Your task to perform on an android device: Go to Yahoo.com Image 0: 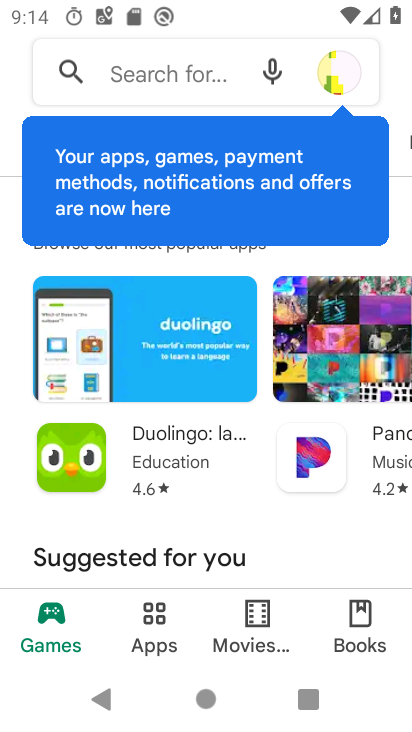
Step 0: press home button
Your task to perform on an android device: Go to Yahoo.com Image 1: 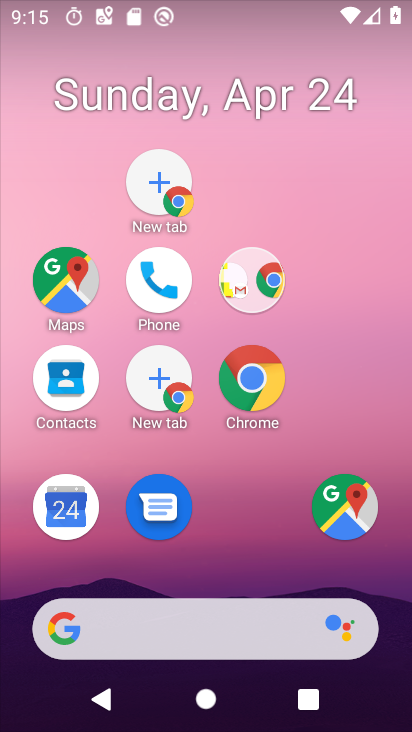
Step 1: drag from (269, 702) to (136, 20)
Your task to perform on an android device: Go to Yahoo.com Image 2: 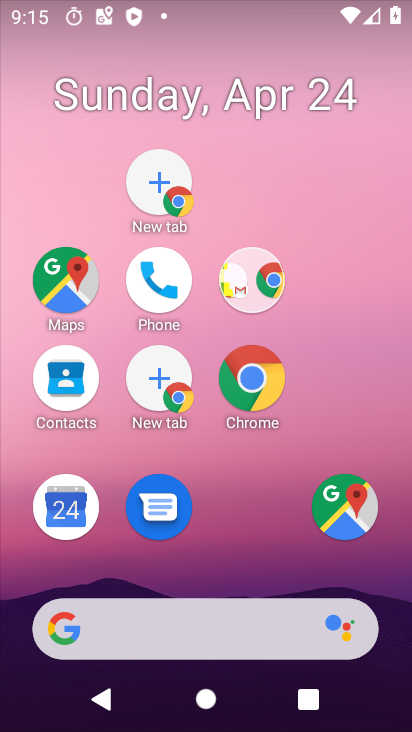
Step 2: drag from (248, 683) to (155, 172)
Your task to perform on an android device: Go to Yahoo.com Image 3: 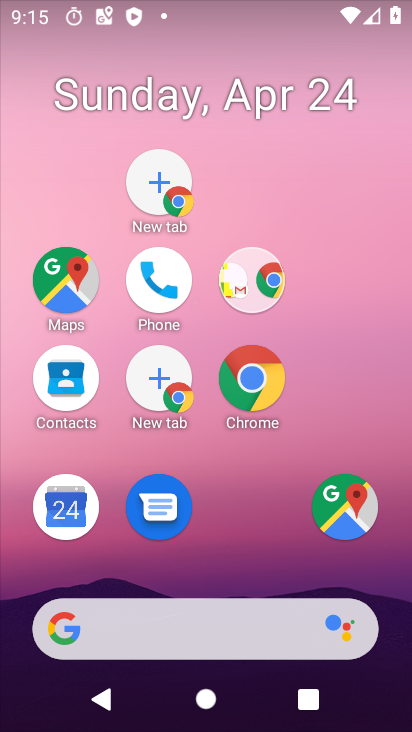
Step 3: drag from (237, 679) to (164, 224)
Your task to perform on an android device: Go to Yahoo.com Image 4: 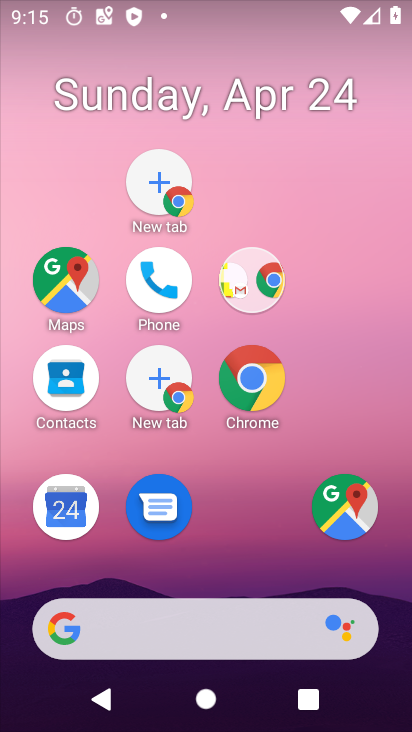
Step 4: drag from (206, 463) to (149, 49)
Your task to perform on an android device: Go to Yahoo.com Image 5: 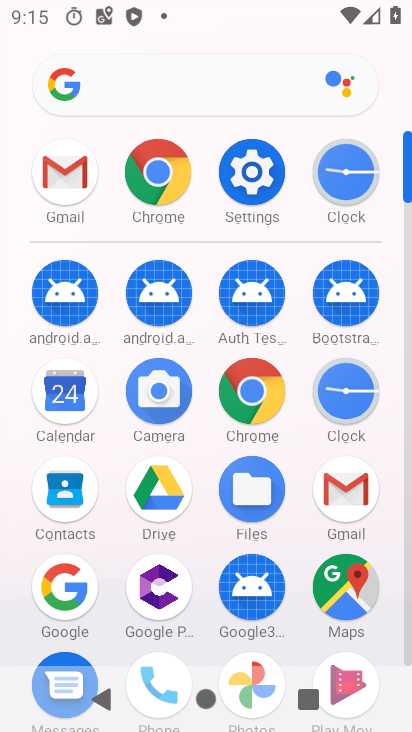
Step 5: click (161, 159)
Your task to perform on an android device: Go to Yahoo.com Image 6: 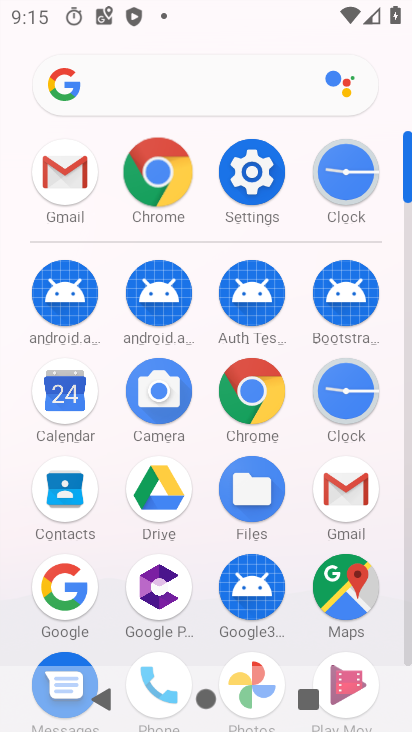
Step 6: click (161, 158)
Your task to perform on an android device: Go to Yahoo.com Image 7: 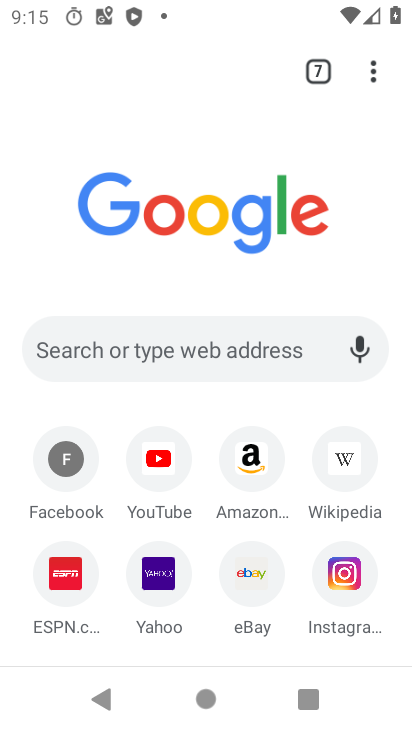
Step 7: click (165, 579)
Your task to perform on an android device: Go to Yahoo.com Image 8: 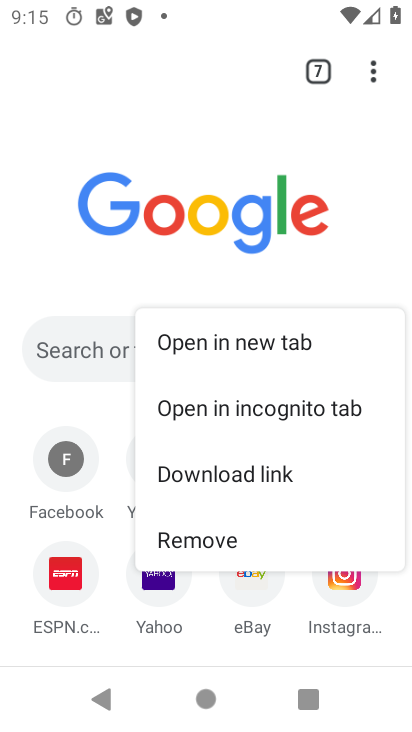
Step 8: click (214, 340)
Your task to perform on an android device: Go to Yahoo.com Image 9: 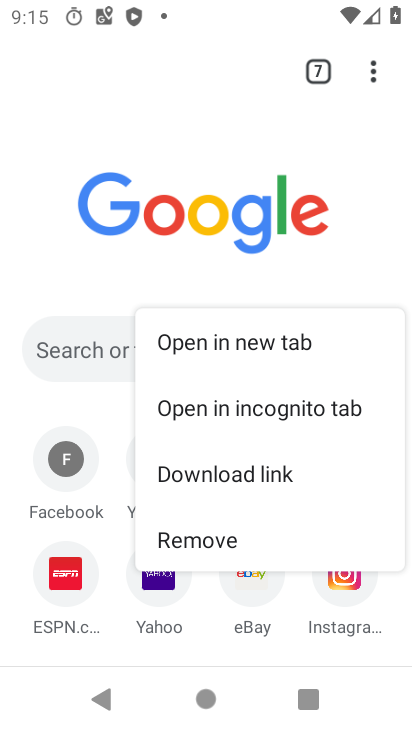
Step 9: click (214, 340)
Your task to perform on an android device: Go to Yahoo.com Image 10: 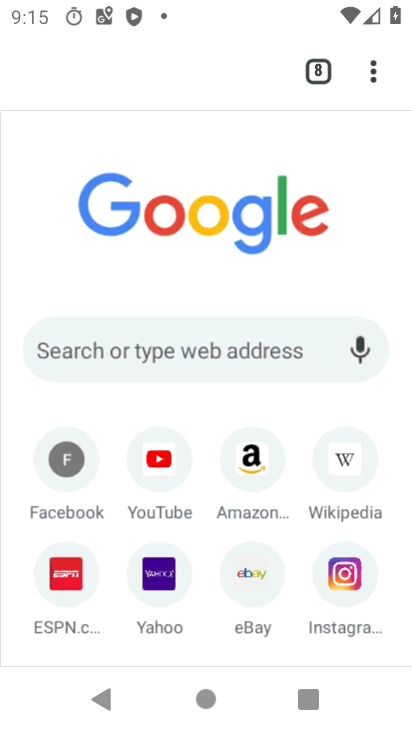
Step 10: click (215, 340)
Your task to perform on an android device: Go to Yahoo.com Image 11: 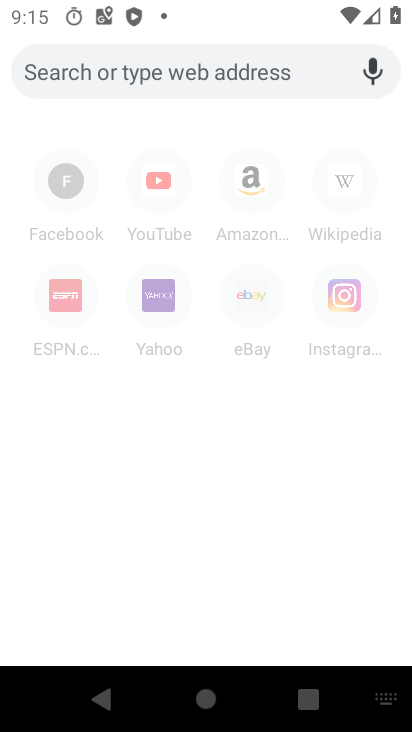
Step 11: click (66, 75)
Your task to perform on an android device: Go to Yahoo.com Image 12: 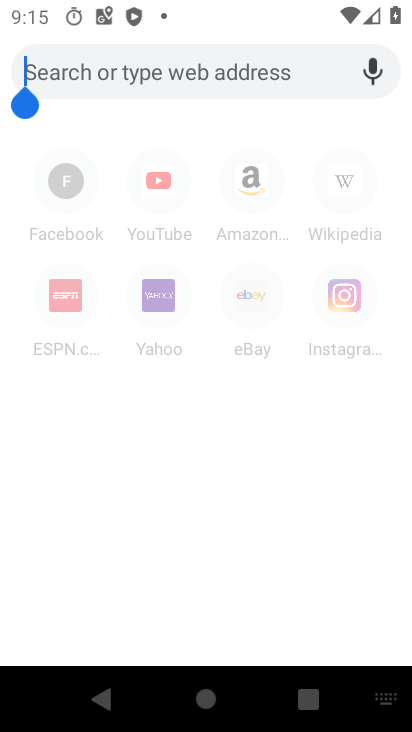
Step 12: click (144, 290)
Your task to perform on an android device: Go to Yahoo.com Image 13: 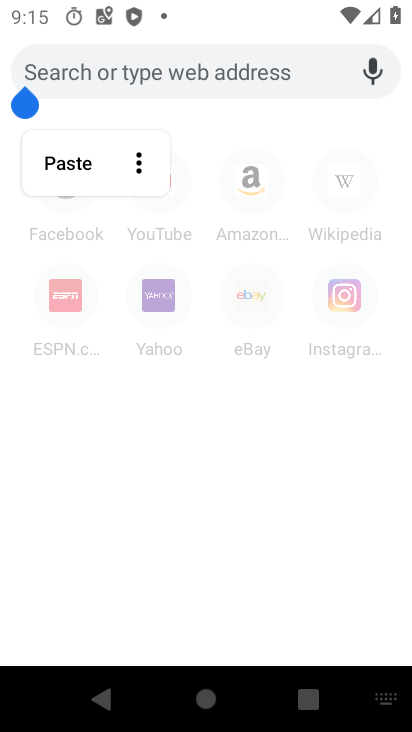
Step 13: click (151, 293)
Your task to perform on an android device: Go to Yahoo.com Image 14: 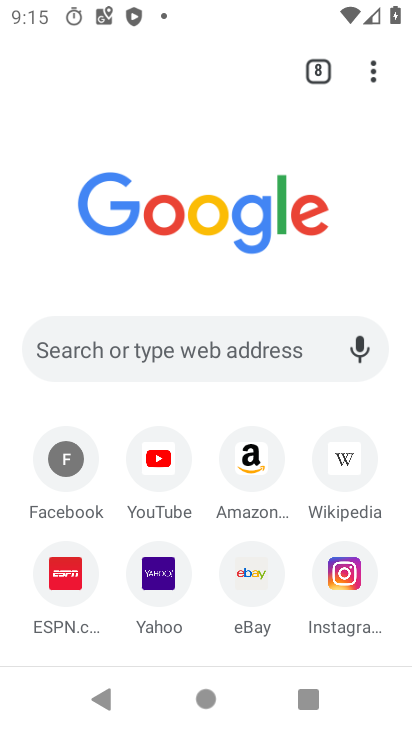
Step 14: click (158, 585)
Your task to perform on an android device: Go to Yahoo.com Image 15: 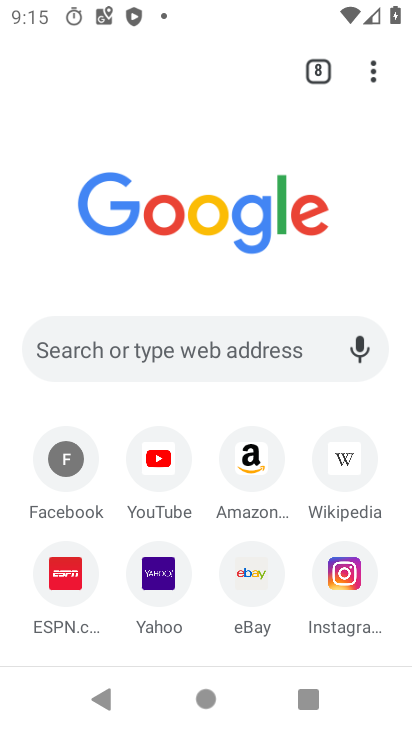
Step 15: click (158, 585)
Your task to perform on an android device: Go to Yahoo.com Image 16: 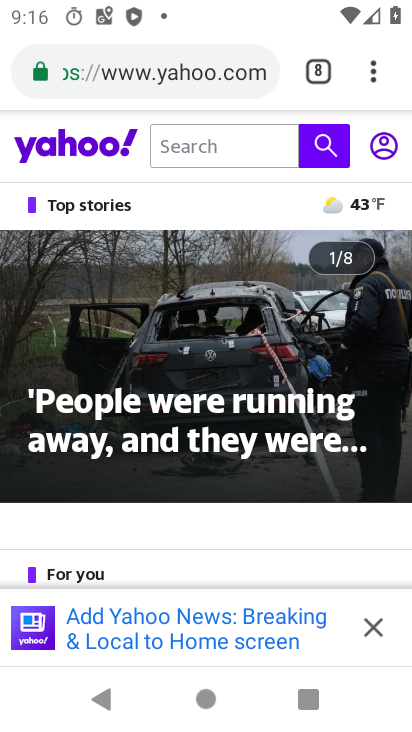
Step 16: task complete